Your task to perform on an android device: Go to sound settings Image 0: 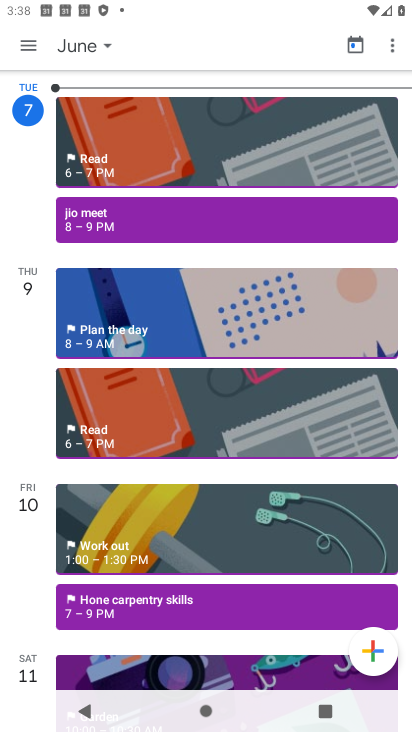
Step 0: task complete